Your task to perform on an android device: uninstall "Gboard" Image 0: 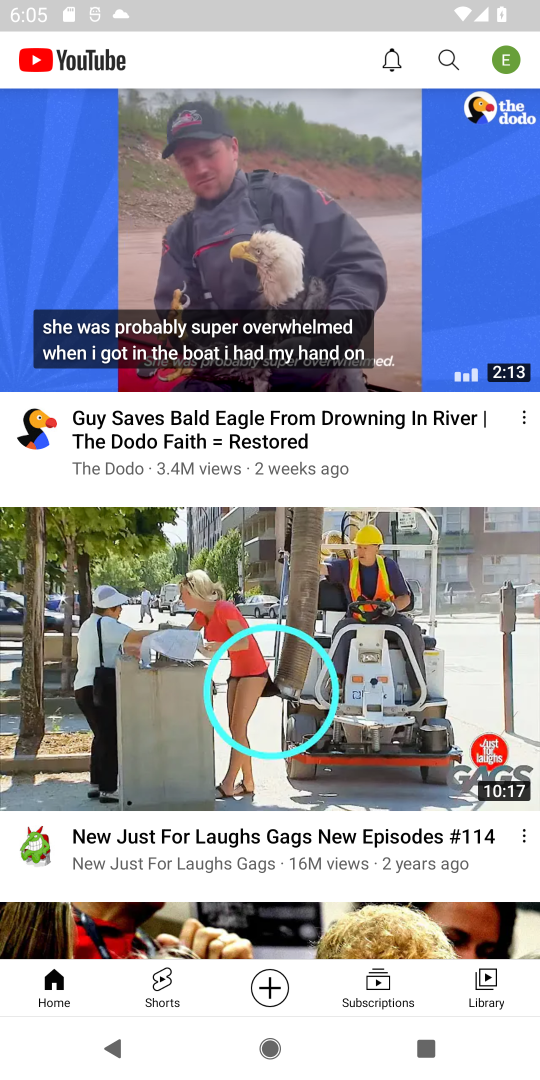
Step 0: press home button
Your task to perform on an android device: uninstall "Gboard" Image 1: 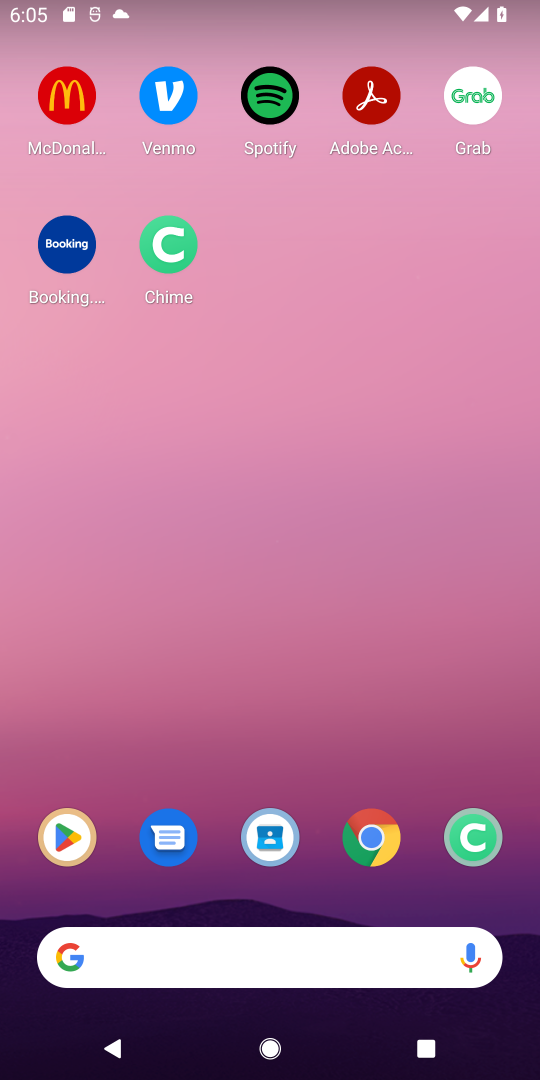
Step 1: click (61, 832)
Your task to perform on an android device: uninstall "Gboard" Image 2: 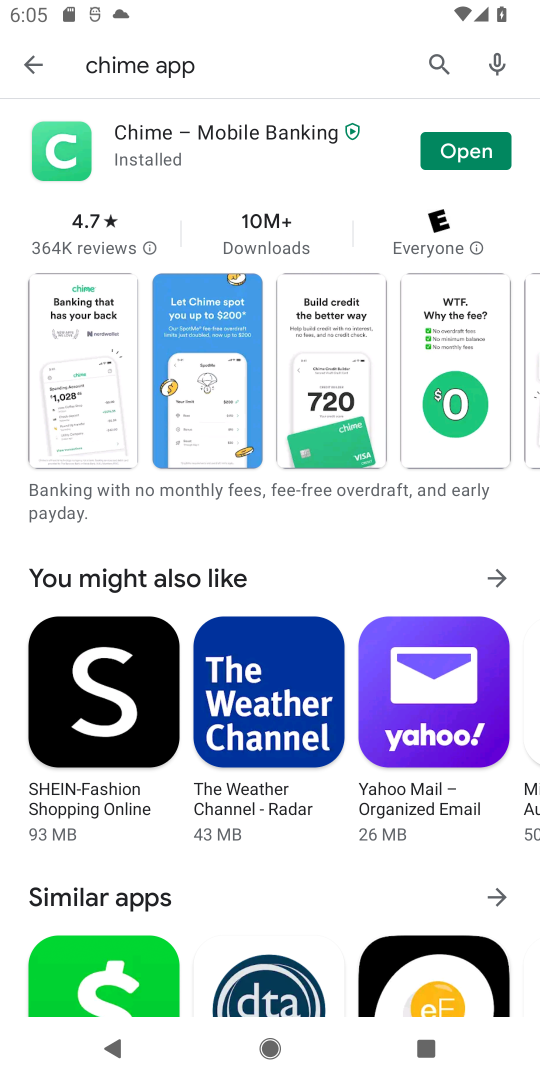
Step 2: click (438, 47)
Your task to perform on an android device: uninstall "Gboard" Image 3: 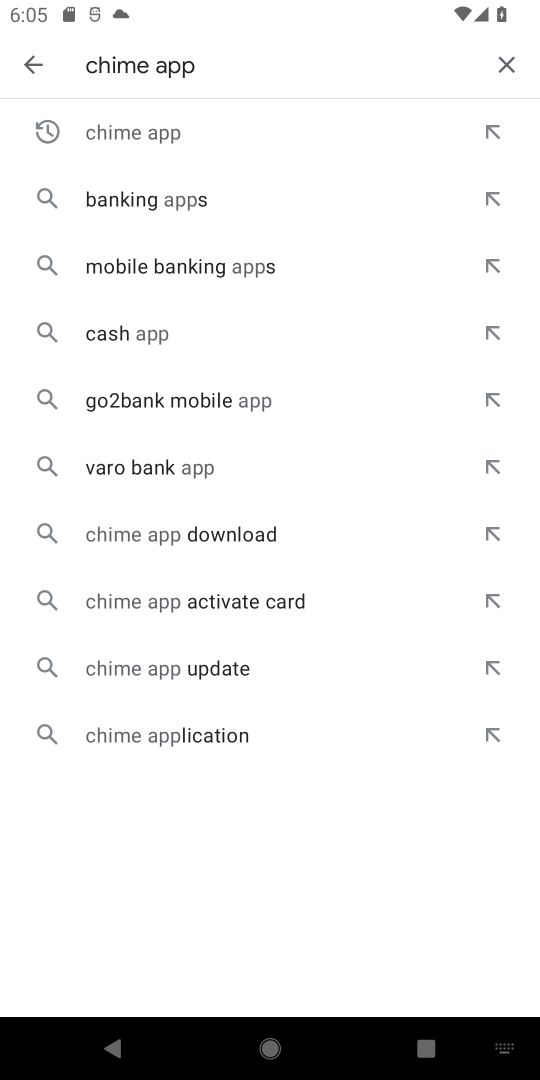
Step 3: click (488, 67)
Your task to perform on an android device: uninstall "Gboard" Image 4: 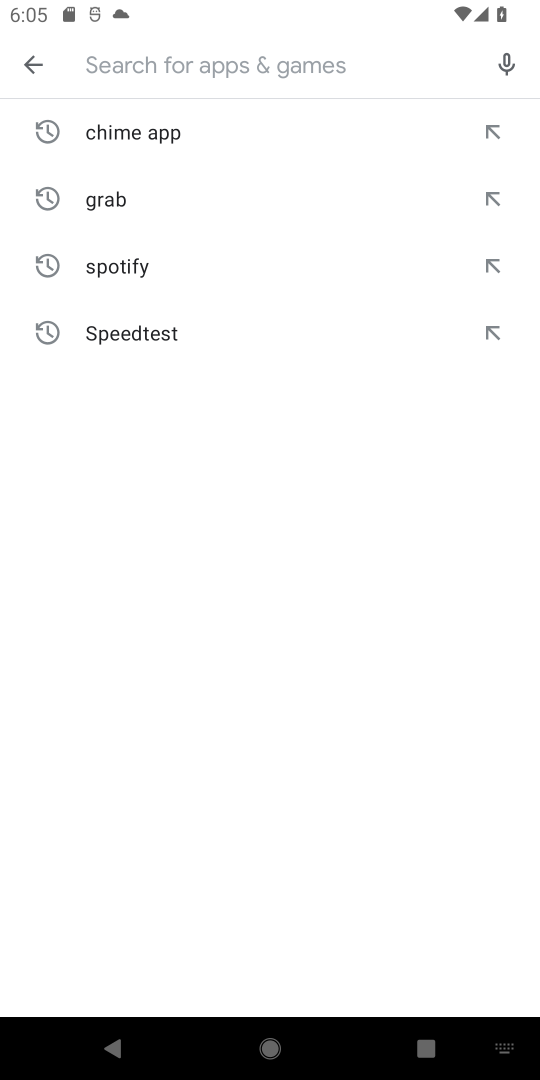
Step 4: type "Gboard"
Your task to perform on an android device: uninstall "Gboard" Image 5: 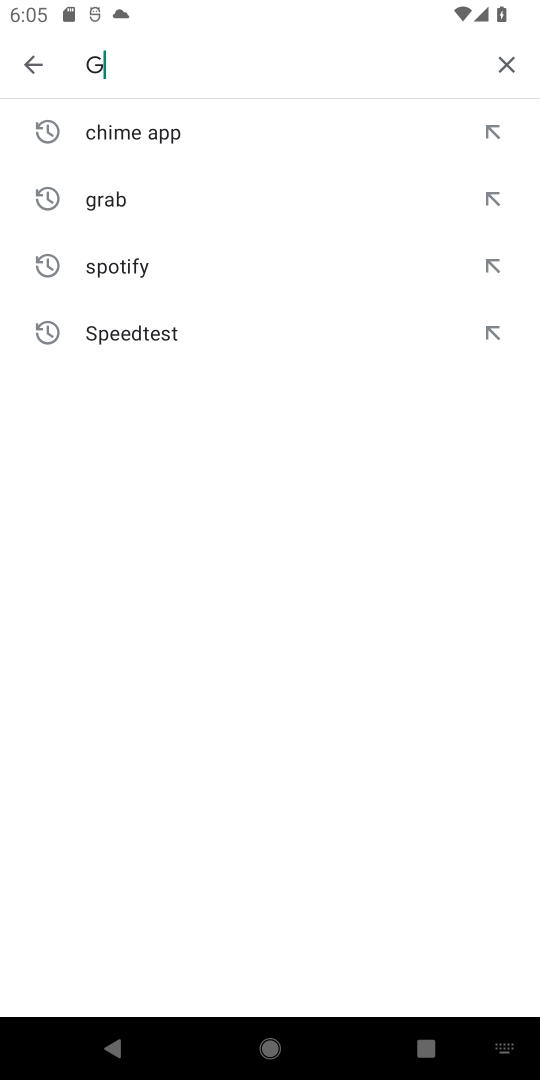
Step 5: type ""
Your task to perform on an android device: uninstall "Gboard" Image 6: 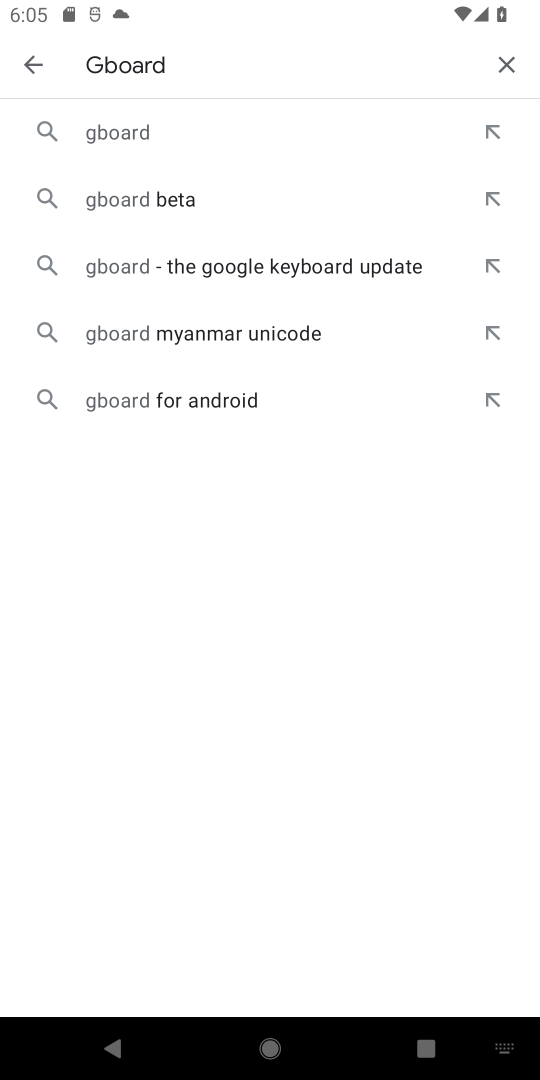
Step 6: click (248, 133)
Your task to perform on an android device: uninstall "Gboard" Image 7: 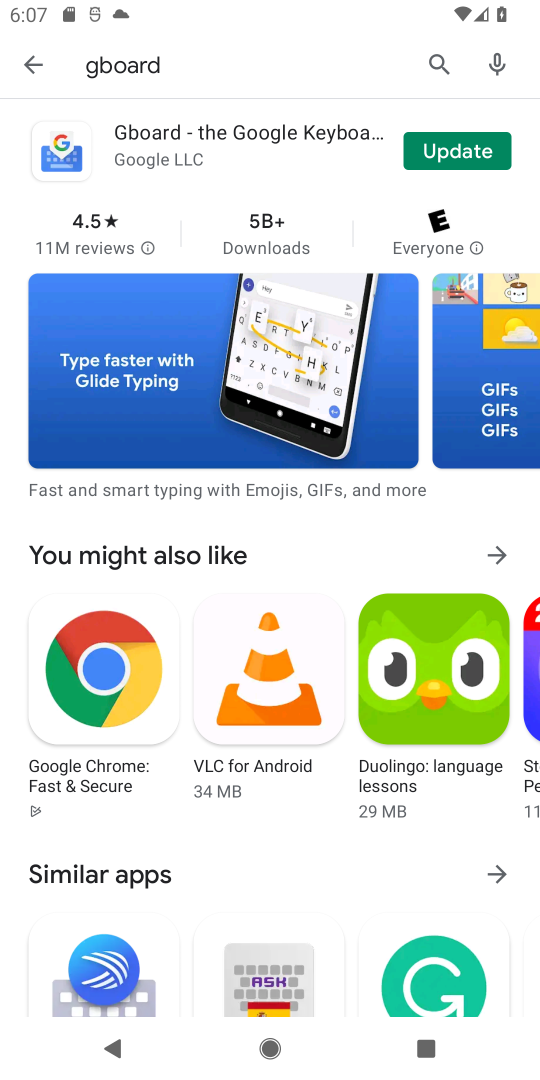
Step 7: click (446, 163)
Your task to perform on an android device: uninstall "Gboard" Image 8: 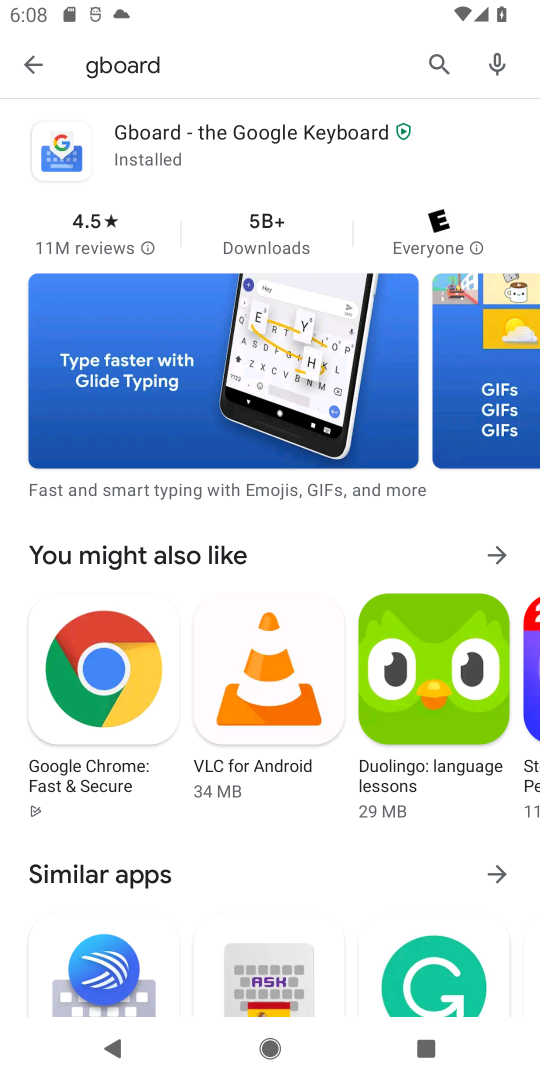
Step 8: click (185, 80)
Your task to perform on an android device: uninstall "Gboard" Image 9: 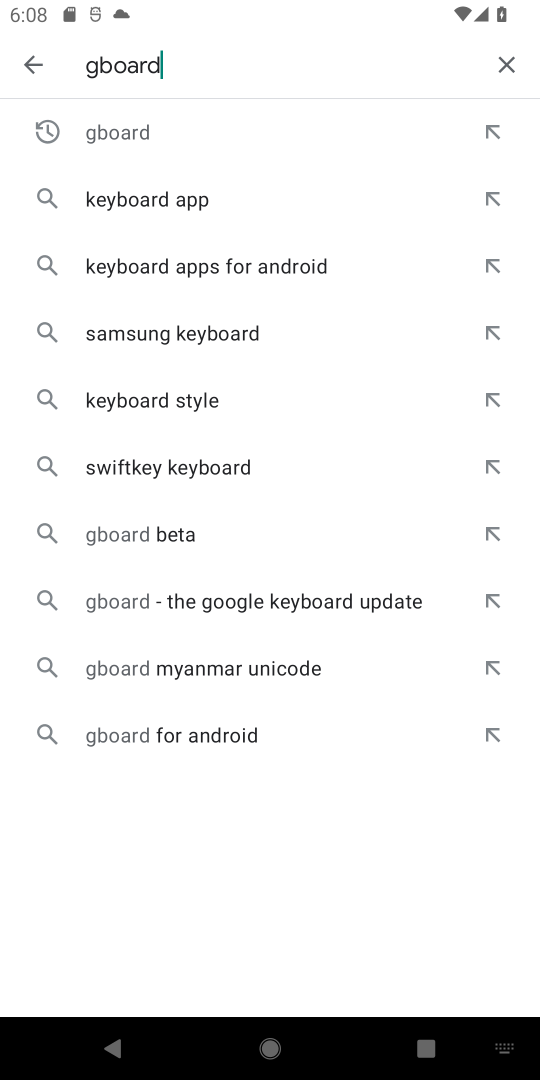
Step 9: click (178, 161)
Your task to perform on an android device: uninstall "Gboard" Image 10: 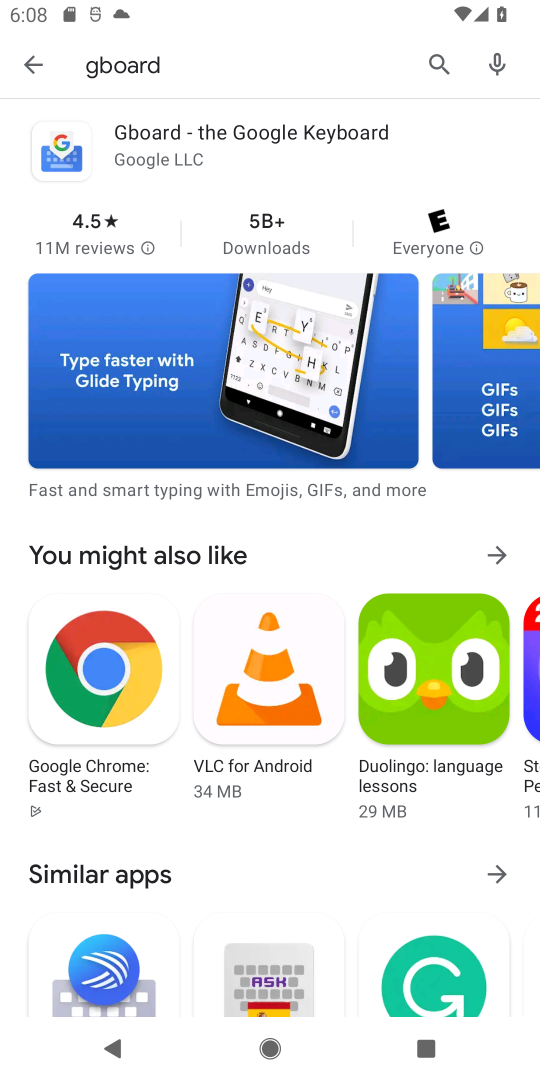
Step 10: task complete